Your task to perform on an android device: Go to Wikipedia Image 0: 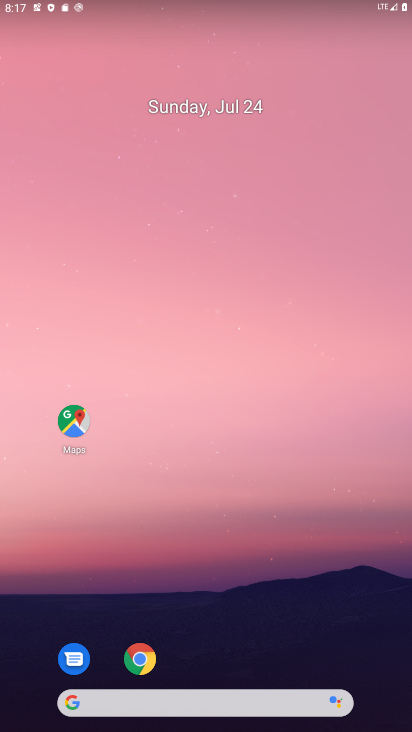
Step 0: click (141, 658)
Your task to perform on an android device: Go to Wikipedia Image 1: 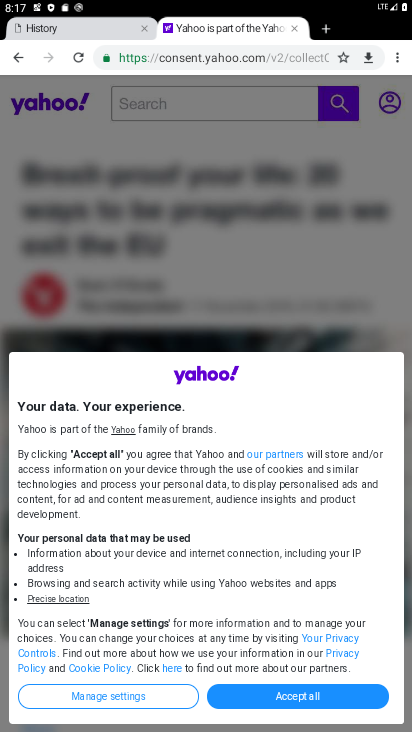
Step 1: click (396, 59)
Your task to perform on an android device: Go to Wikipedia Image 2: 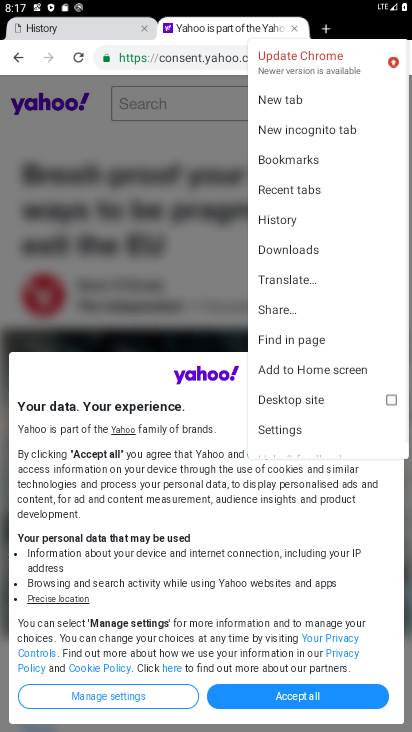
Step 2: click (272, 101)
Your task to perform on an android device: Go to Wikipedia Image 3: 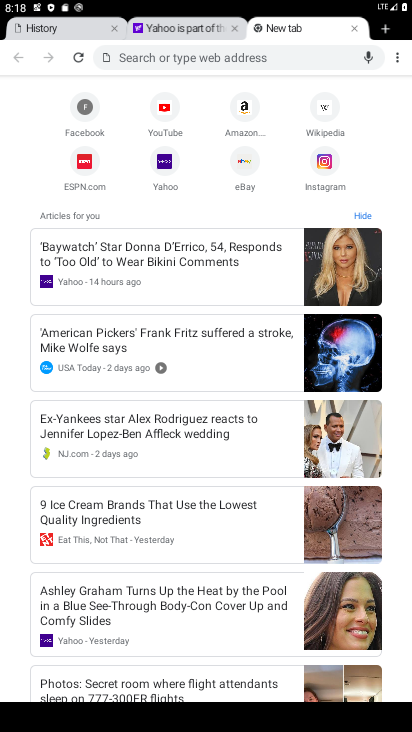
Step 3: click (334, 107)
Your task to perform on an android device: Go to Wikipedia Image 4: 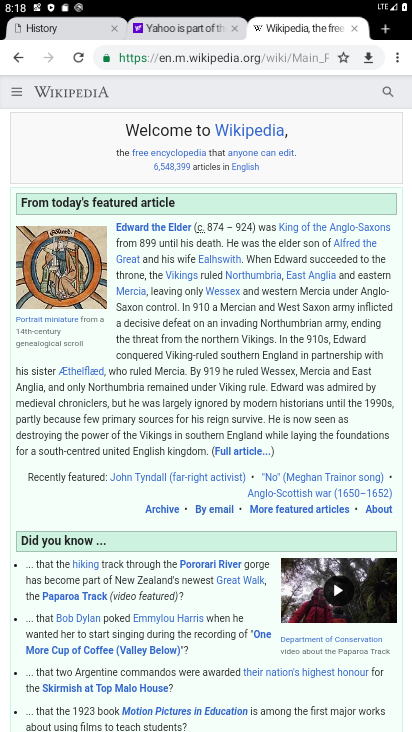
Step 4: task complete